Your task to perform on an android device: choose inbox layout in the gmail app Image 0: 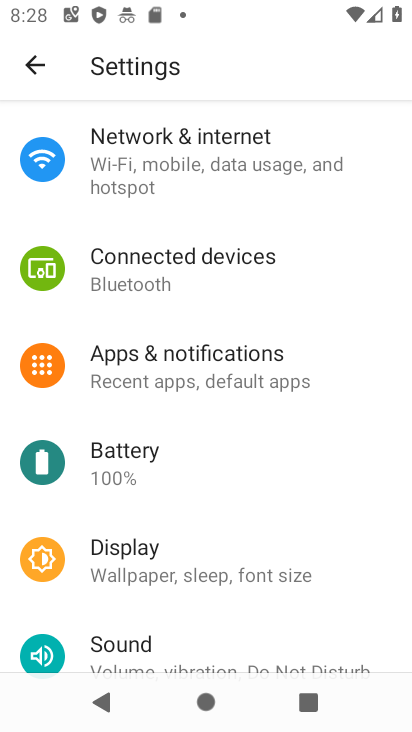
Step 0: press home button
Your task to perform on an android device: choose inbox layout in the gmail app Image 1: 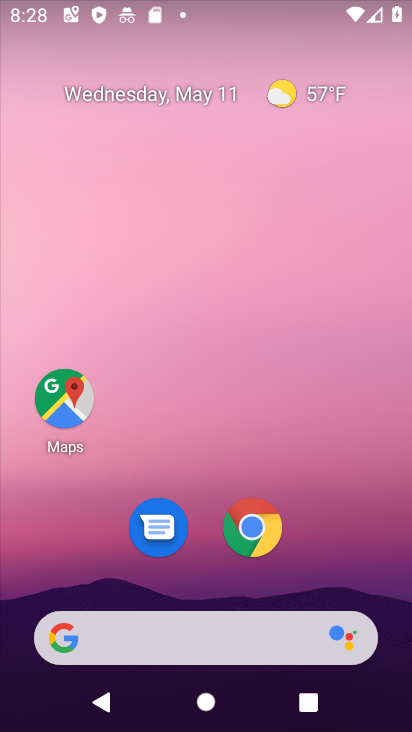
Step 1: drag from (381, 440) to (401, 33)
Your task to perform on an android device: choose inbox layout in the gmail app Image 2: 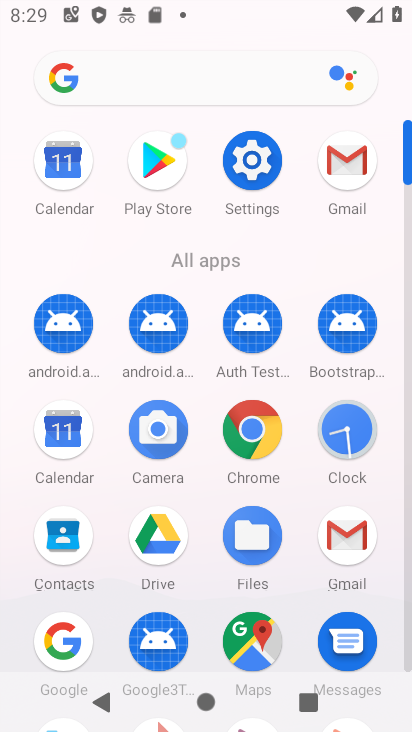
Step 2: click (343, 184)
Your task to perform on an android device: choose inbox layout in the gmail app Image 3: 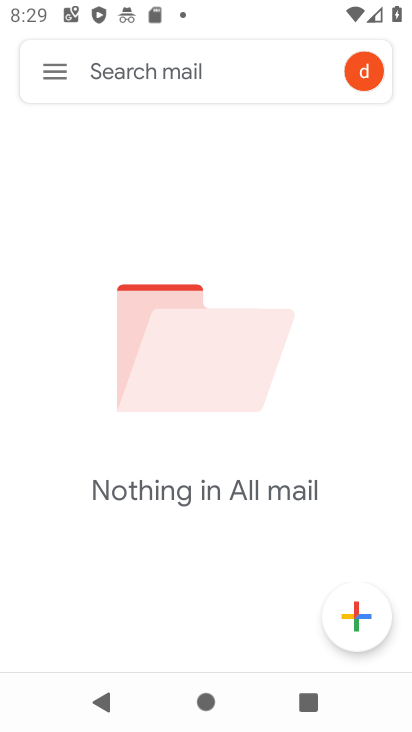
Step 3: click (56, 82)
Your task to perform on an android device: choose inbox layout in the gmail app Image 4: 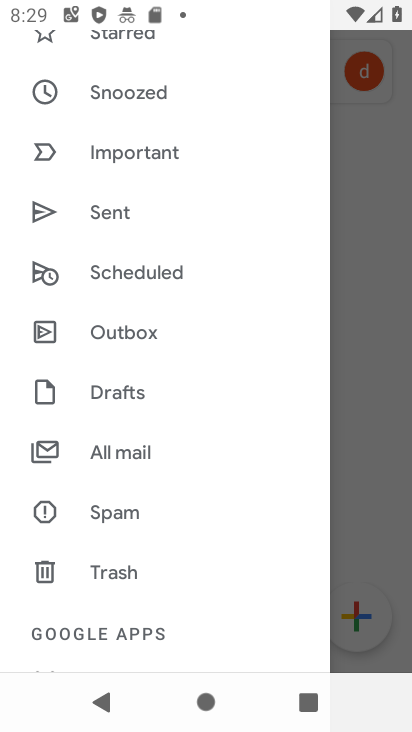
Step 4: drag from (222, 487) to (219, 35)
Your task to perform on an android device: choose inbox layout in the gmail app Image 5: 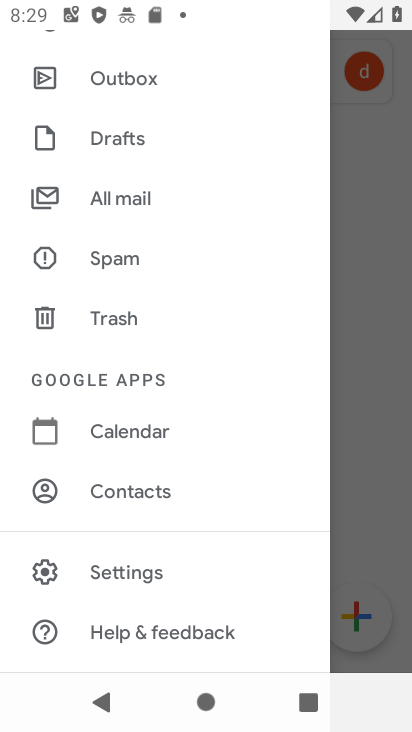
Step 5: click (145, 574)
Your task to perform on an android device: choose inbox layout in the gmail app Image 6: 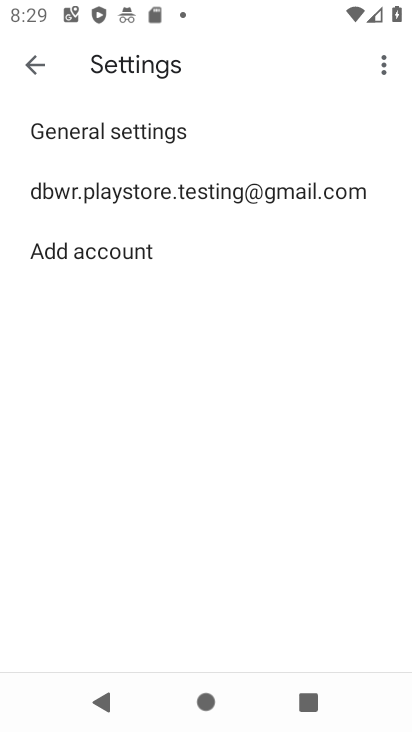
Step 6: click (101, 201)
Your task to perform on an android device: choose inbox layout in the gmail app Image 7: 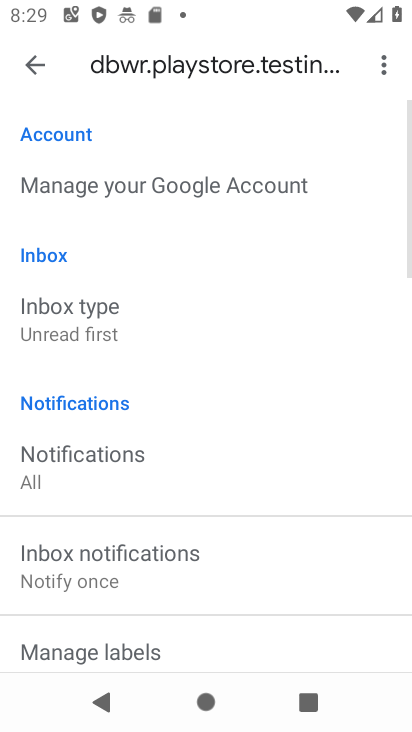
Step 7: click (81, 313)
Your task to perform on an android device: choose inbox layout in the gmail app Image 8: 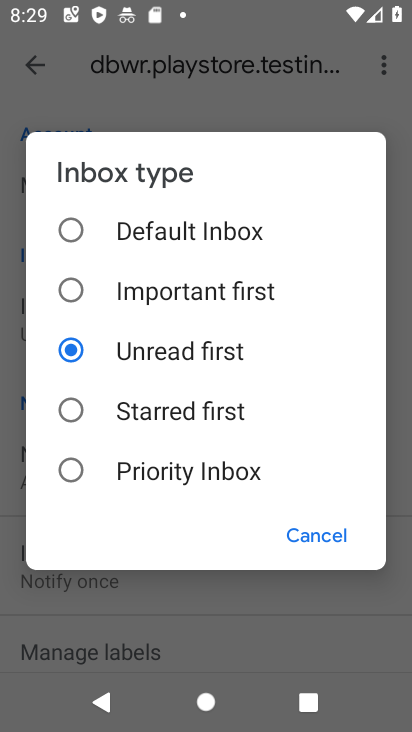
Step 8: click (83, 402)
Your task to perform on an android device: choose inbox layout in the gmail app Image 9: 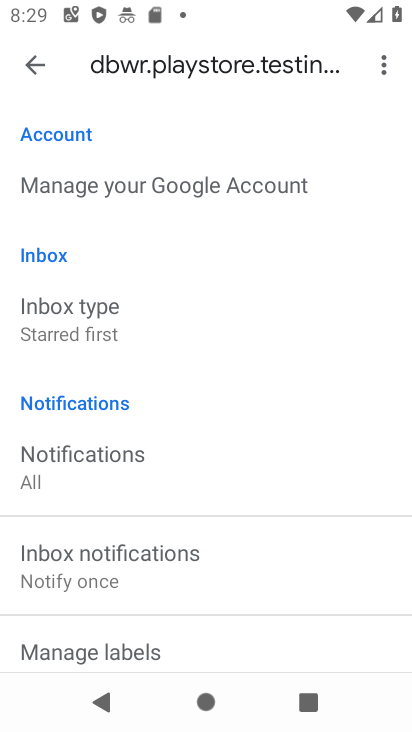
Step 9: task complete